Your task to perform on an android device: delete browsing data in the chrome app Image 0: 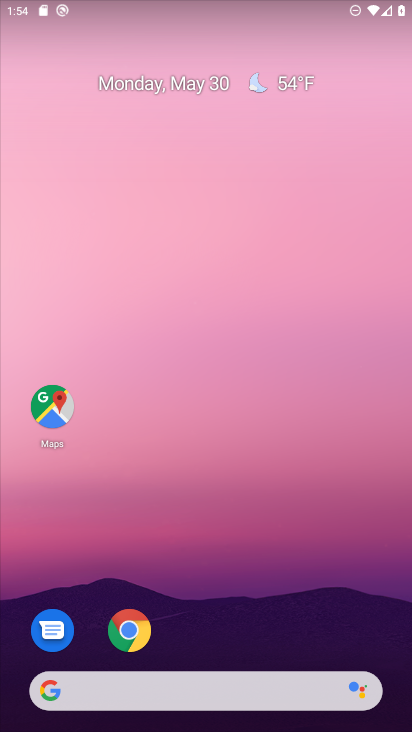
Step 0: click (129, 633)
Your task to perform on an android device: delete browsing data in the chrome app Image 1: 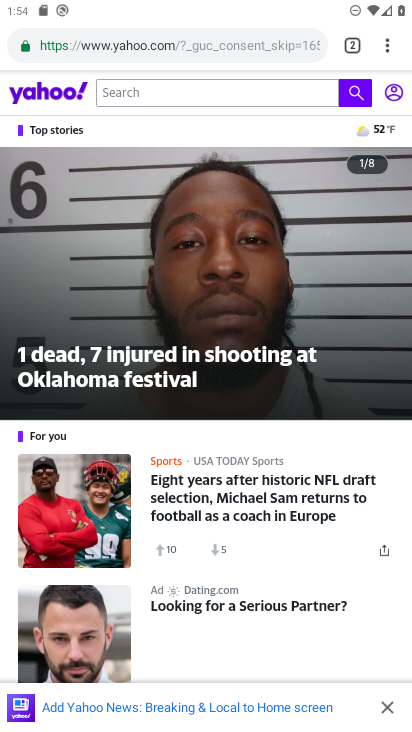
Step 1: drag from (381, 49) to (226, 250)
Your task to perform on an android device: delete browsing data in the chrome app Image 2: 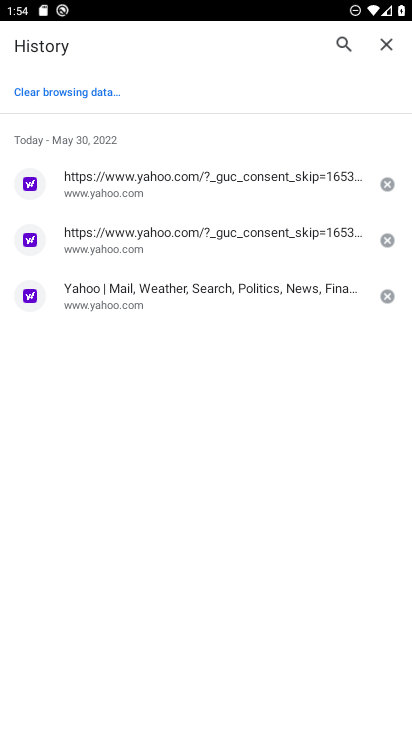
Step 2: click (80, 97)
Your task to perform on an android device: delete browsing data in the chrome app Image 3: 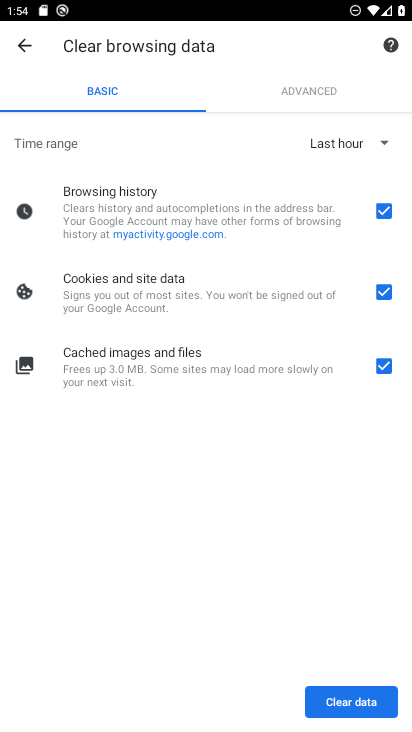
Step 3: click (360, 701)
Your task to perform on an android device: delete browsing data in the chrome app Image 4: 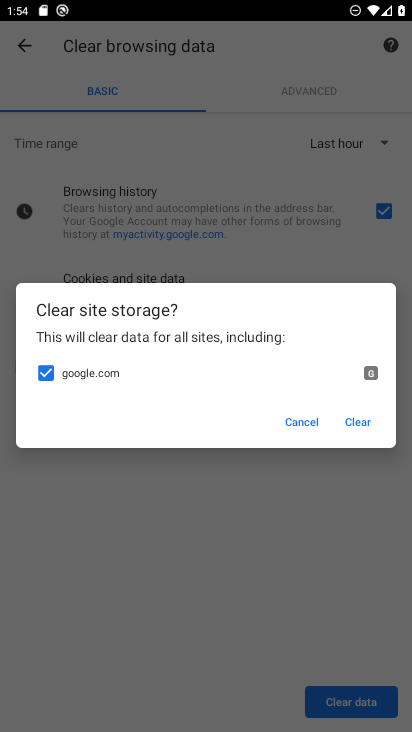
Step 4: click (353, 421)
Your task to perform on an android device: delete browsing data in the chrome app Image 5: 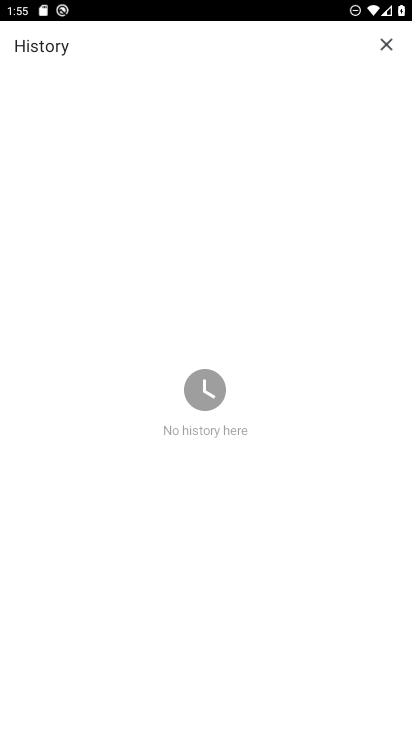
Step 5: task complete